Your task to perform on an android device: turn off notifications in google photos Image 0: 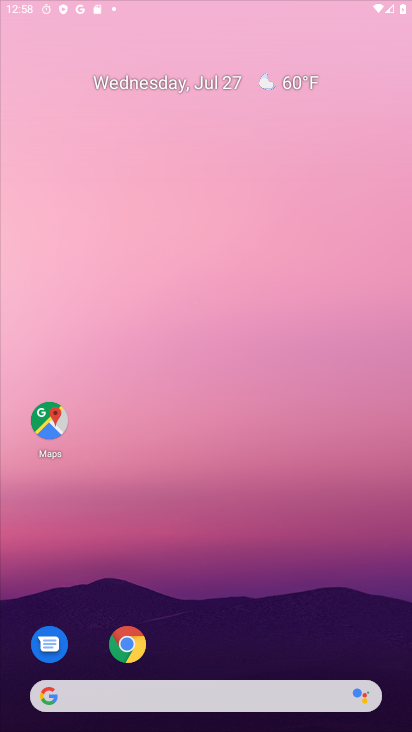
Step 0: drag from (251, 582) to (313, 180)
Your task to perform on an android device: turn off notifications in google photos Image 1: 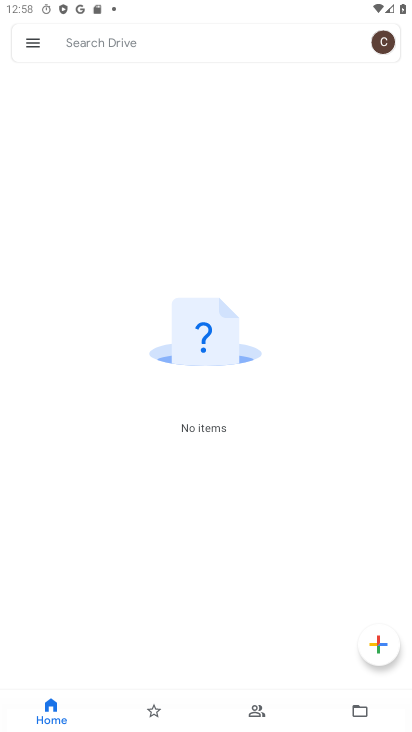
Step 1: press home button
Your task to perform on an android device: turn off notifications in google photos Image 2: 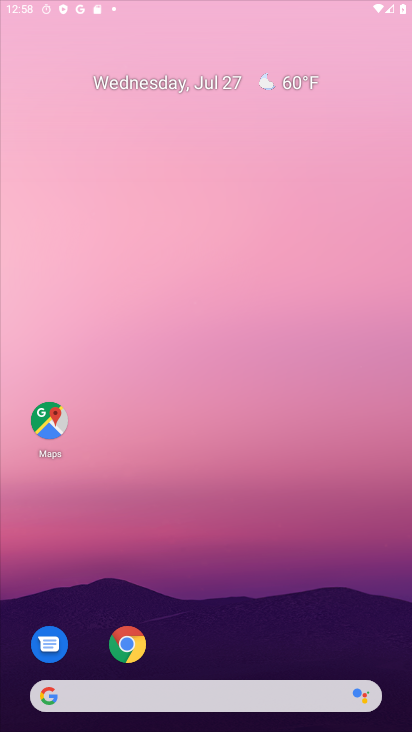
Step 2: drag from (210, 562) to (26, 1)
Your task to perform on an android device: turn off notifications in google photos Image 3: 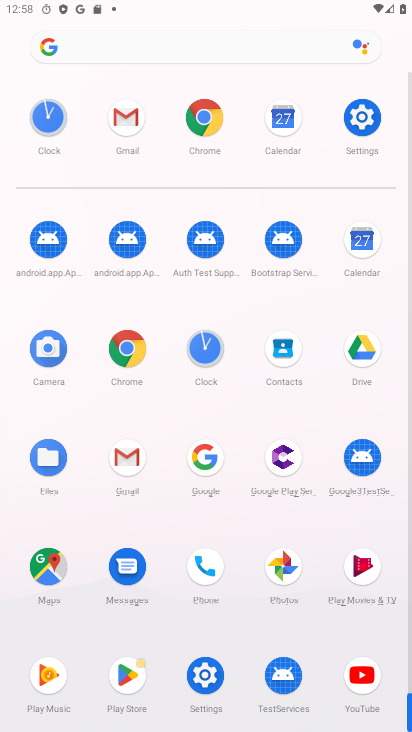
Step 3: click (280, 552)
Your task to perform on an android device: turn off notifications in google photos Image 4: 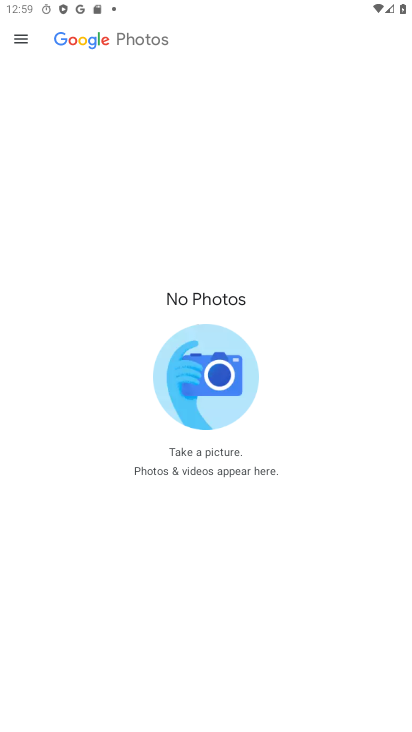
Step 4: drag from (185, 313) to (185, 212)
Your task to perform on an android device: turn off notifications in google photos Image 5: 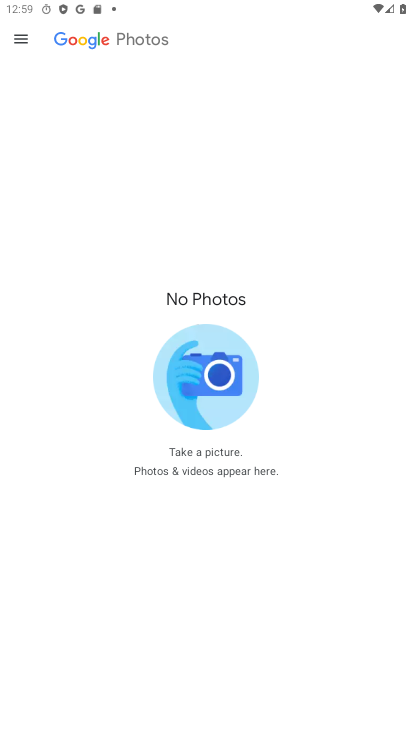
Step 5: click (27, 39)
Your task to perform on an android device: turn off notifications in google photos Image 6: 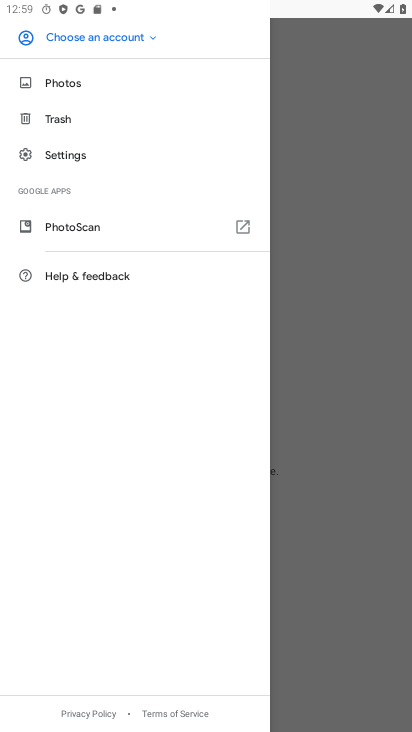
Step 6: click (73, 150)
Your task to perform on an android device: turn off notifications in google photos Image 7: 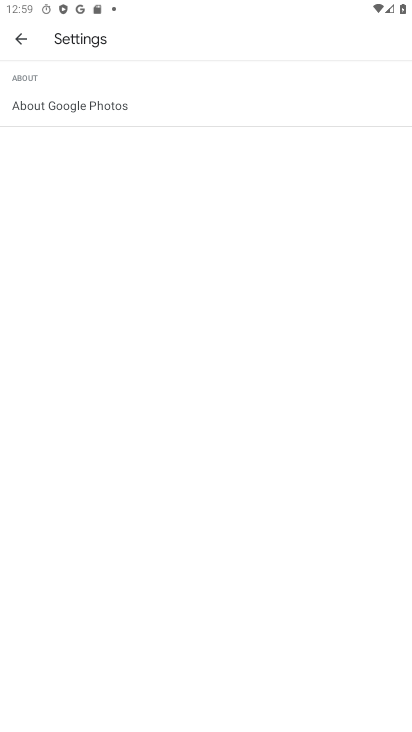
Step 7: drag from (159, 419) to (215, 197)
Your task to perform on an android device: turn off notifications in google photos Image 8: 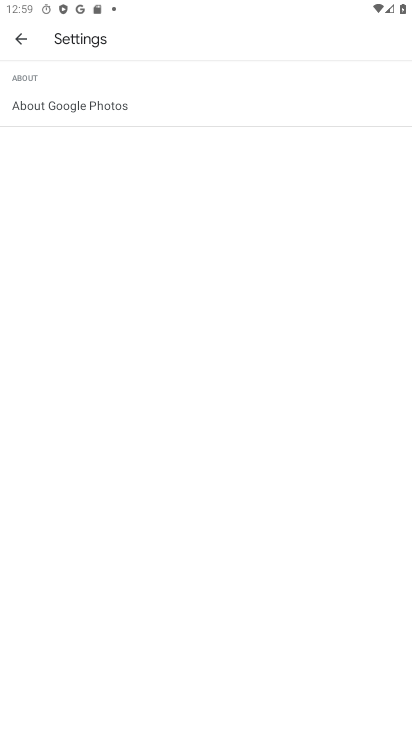
Step 8: drag from (169, 366) to (202, 177)
Your task to perform on an android device: turn off notifications in google photos Image 9: 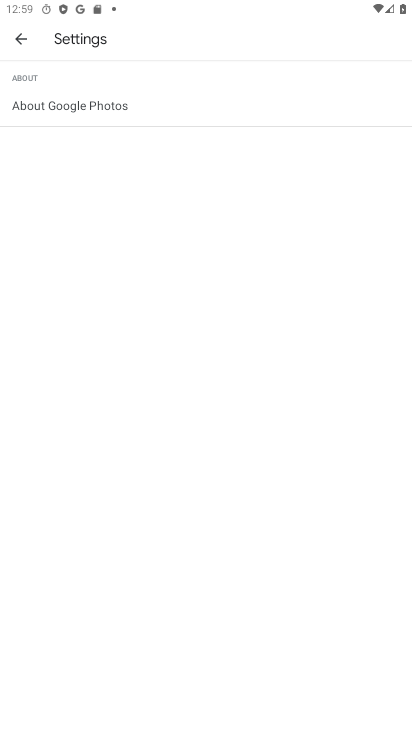
Step 9: click (105, 105)
Your task to perform on an android device: turn off notifications in google photos Image 10: 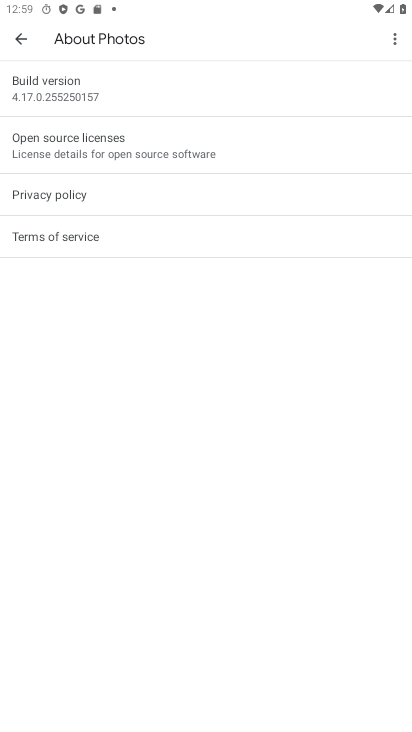
Step 10: task complete